Your task to perform on an android device: What's the latest news in space exploration? Image 0: 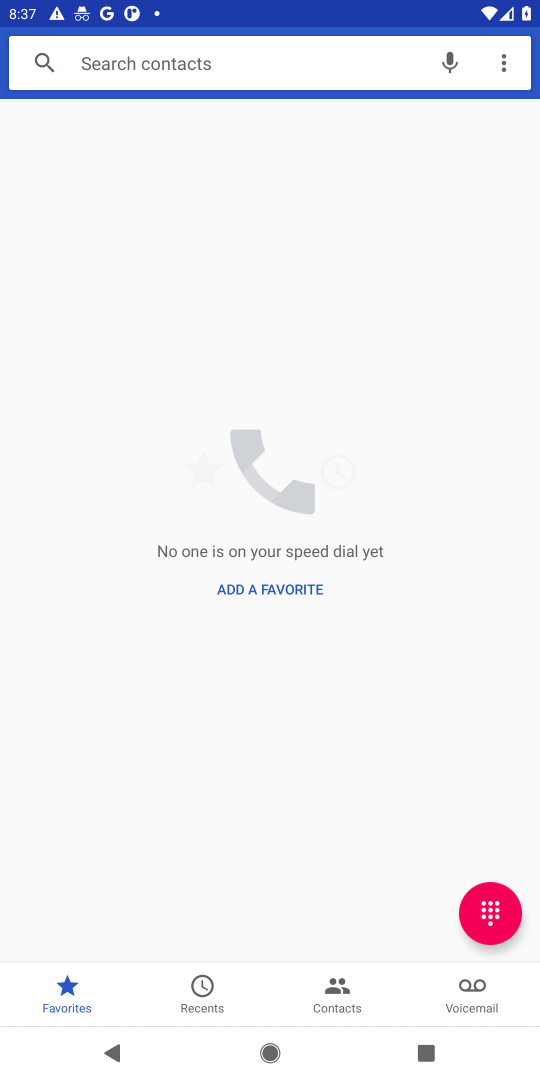
Step 0: press home button
Your task to perform on an android device: What's the latest news in space exploration? Image 1: 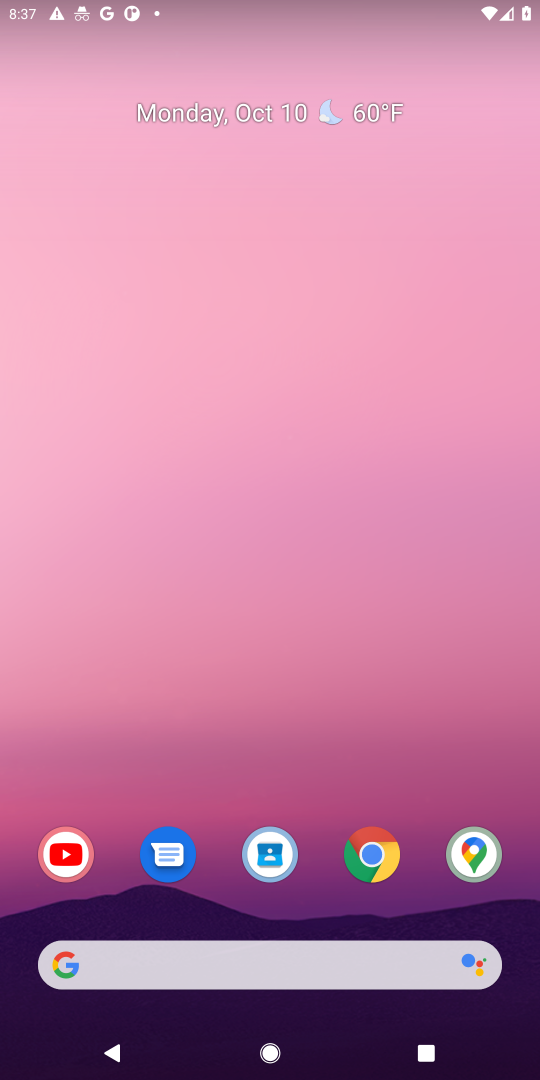
Step 1: click (380, 856)
Your task to perform on an android device: What's the latest news in space exploration? Image 2: 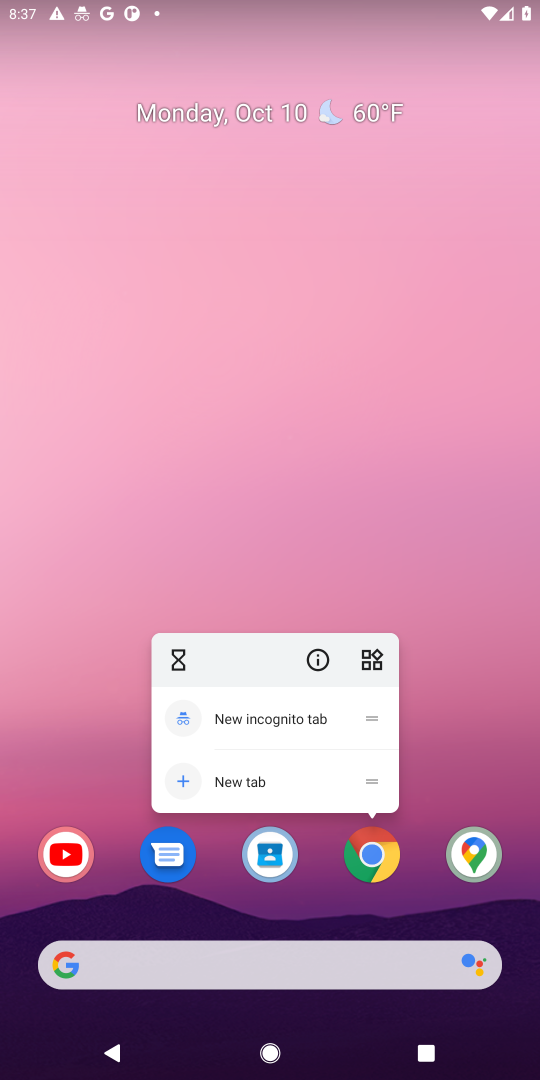
Step 2: click (368, 865)
Your task to perform on an android device: What's the latest news in space exploration? Image 3: 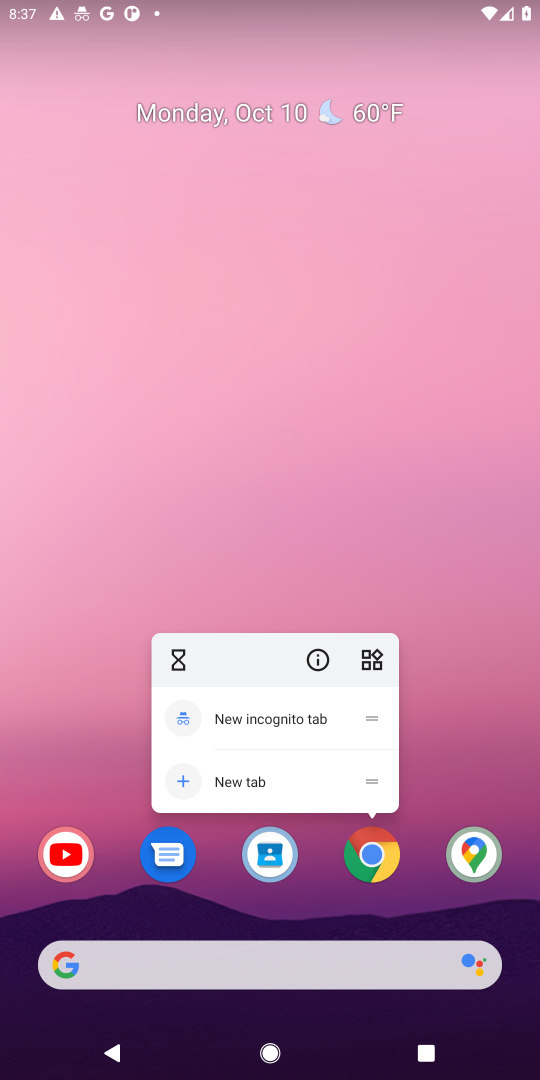
Step 3: click (374, 857)
Your task to perform on an android device: What's the latest news in space exploration? Image 4: 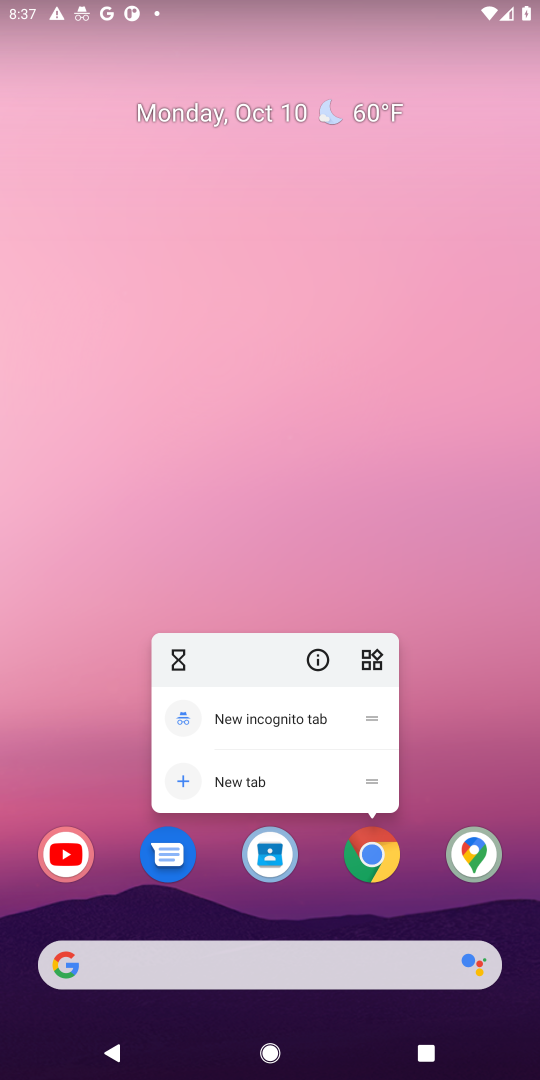
Step 4: click (374, 858)
Your task to perform on an android device: What's the latest news in space exploration? Image 5: 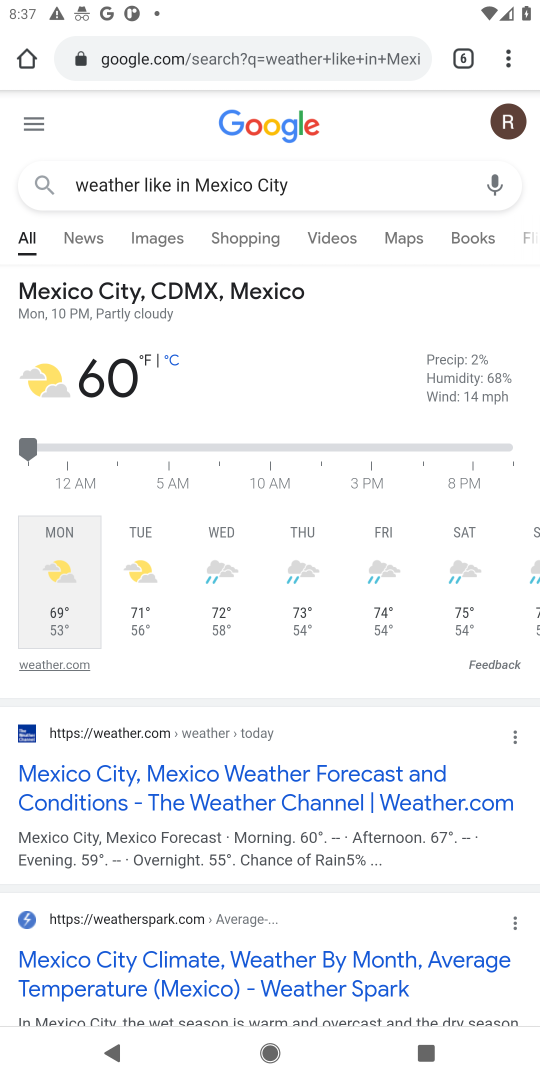
Step 5: click (291, 54)
Your task to perform on an android device: What's the latest news in space exploration? Image 6: 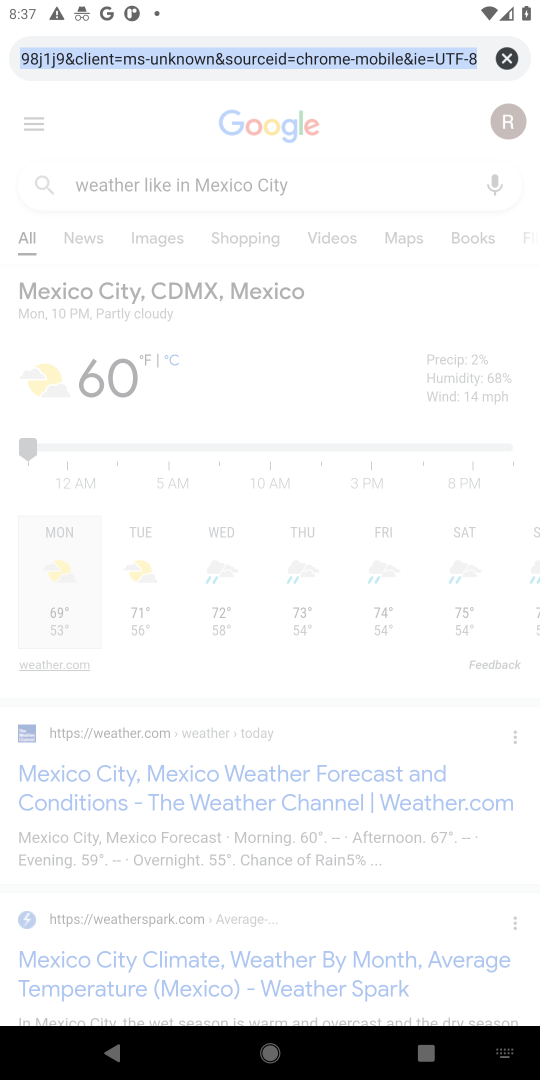
Step 6: click (502, 59)
Your task to perform on an android device: What's the latest news in space exploration? Image 7: 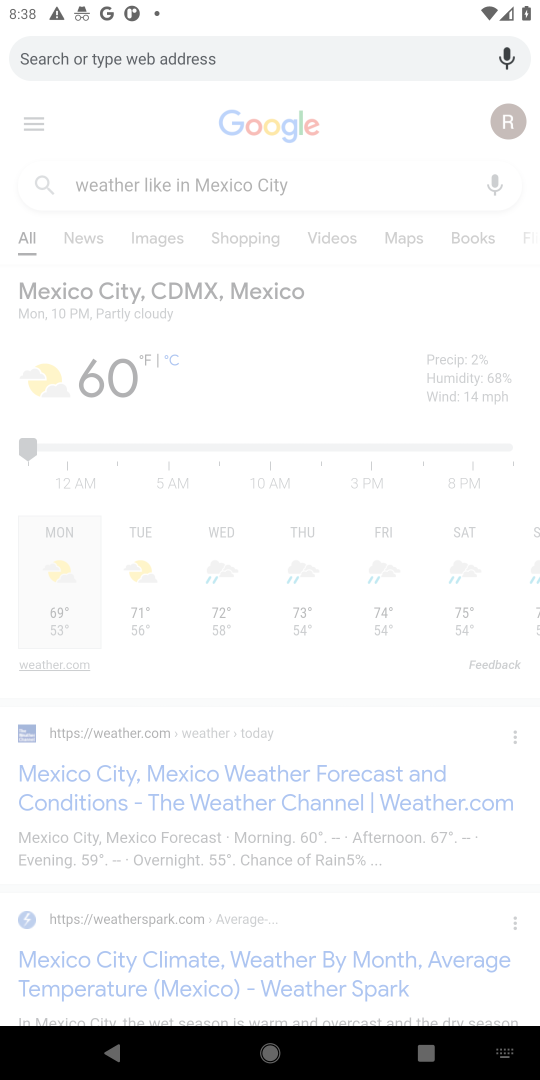
Step 7: type "latest news in space exploration"
Your task to perform on an android device: What's the latest news in space exploration? Image 8: 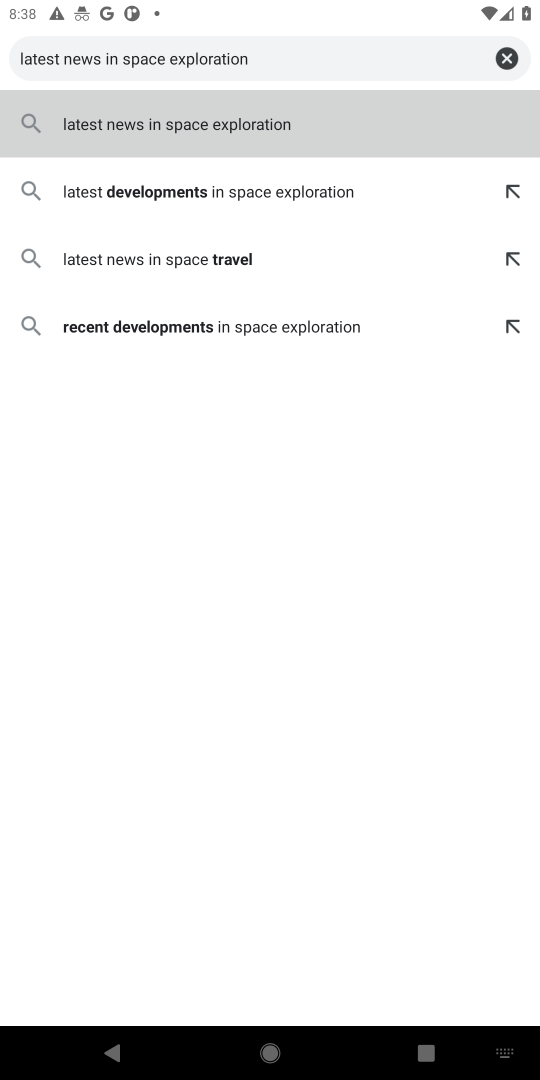
Step 8: press enter
Your task to perform on an android device: What's the latest news in space exploration? Image 9: 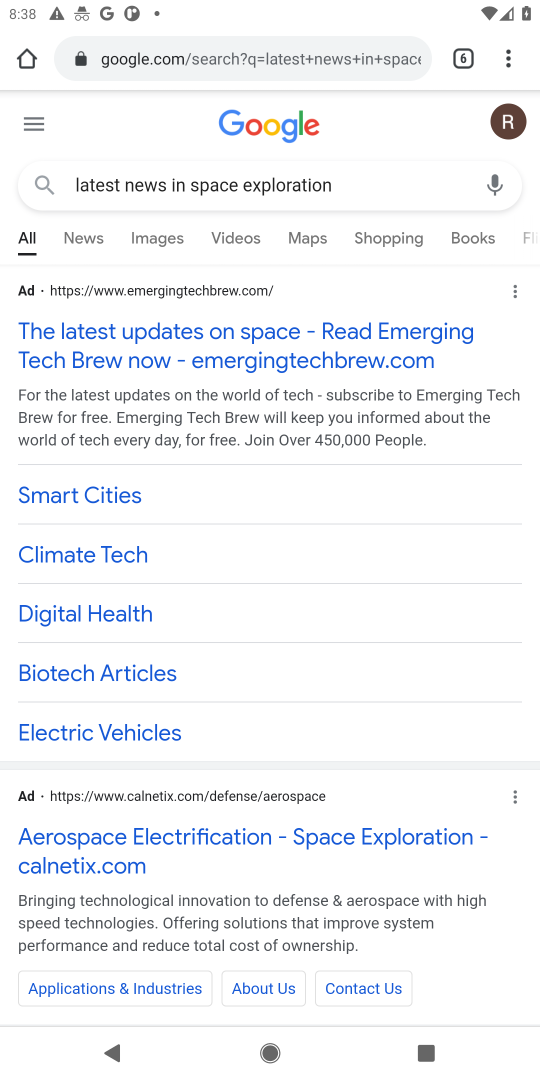
Step 9: click (253, 337)
Your task to perform on an android device: What's the latest news in space exploration? Image 10: 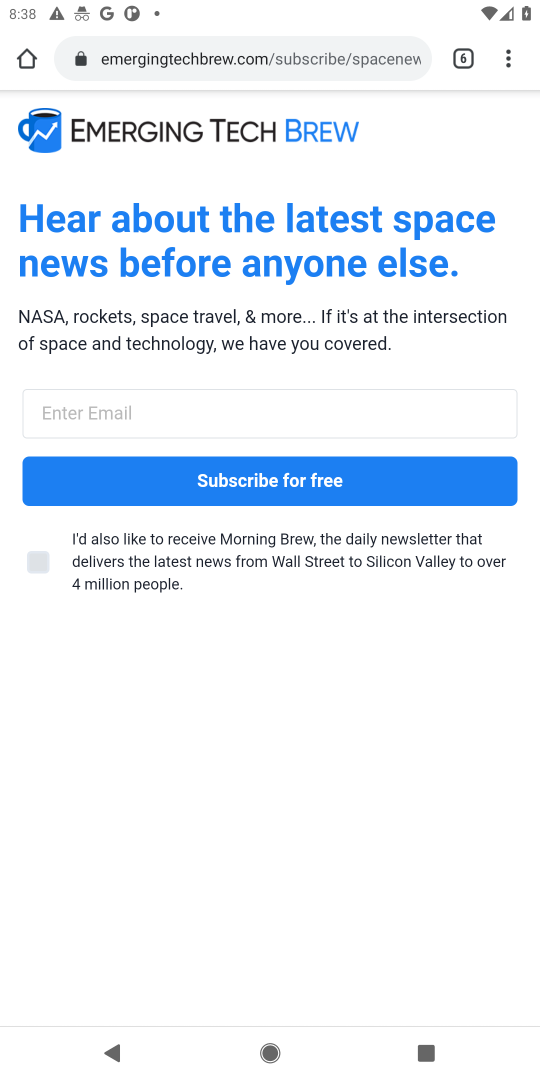
Step 10: task complete